Your task to perform on an android device: allow cookies in the chrome app Image 0: 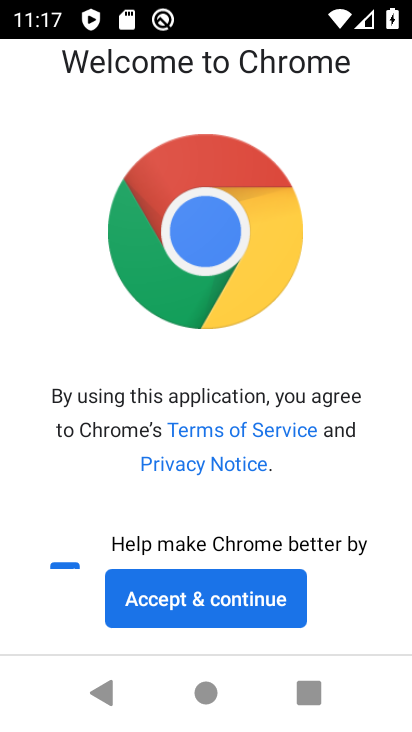
Step 0: click (160, 598)
Your task to perform on an android device: allow cookies in the chrome app Image 1: 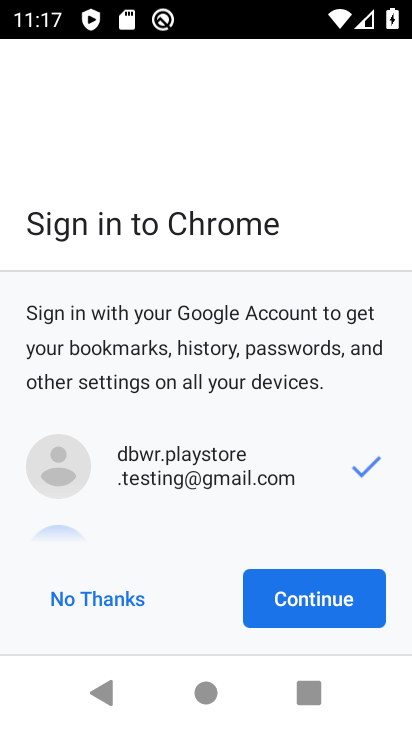
Step 1: click (340, 601)
Your task to perform on an android device: allow cookies in the chrome app Image 2: 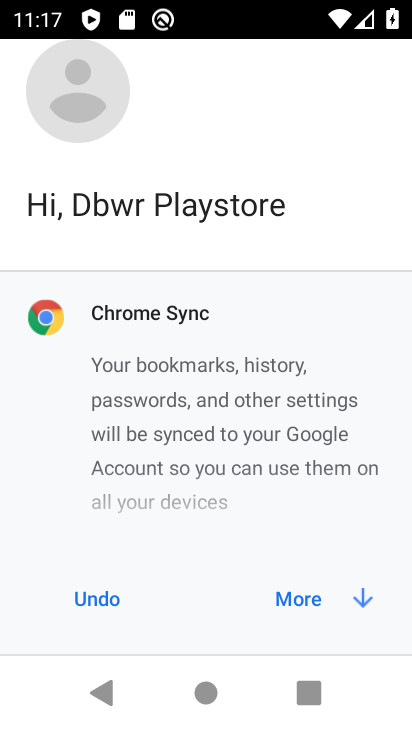
Step 2: click (291, 598)
Your task to perform on an android device: allow cookies in the chrome app Image 3: 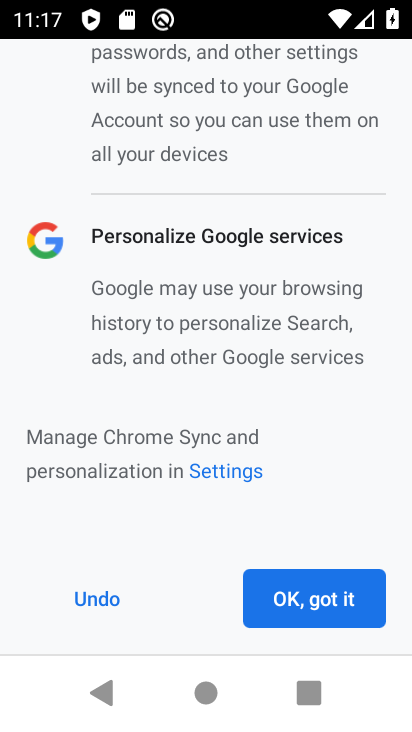
Step 3: click (305, 601)
Your task to perform on an android device: allow cookies in the chrome app Image 4: 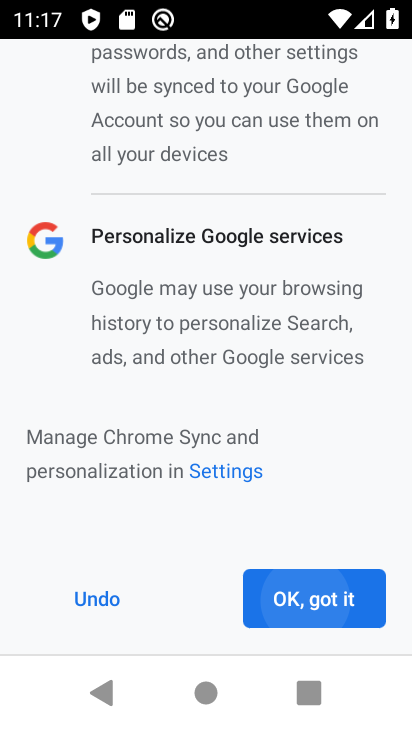
Step 4: click (299, 605)
Your task to perform on an android device: allow cookies in the chrome app Image 5: 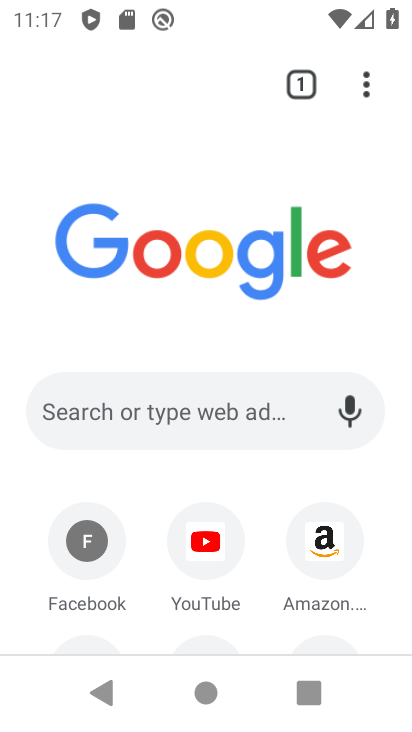
Step 5: click (347, 90)
Your task to perform on an android device: allow cookies in the chrome app Image 6: 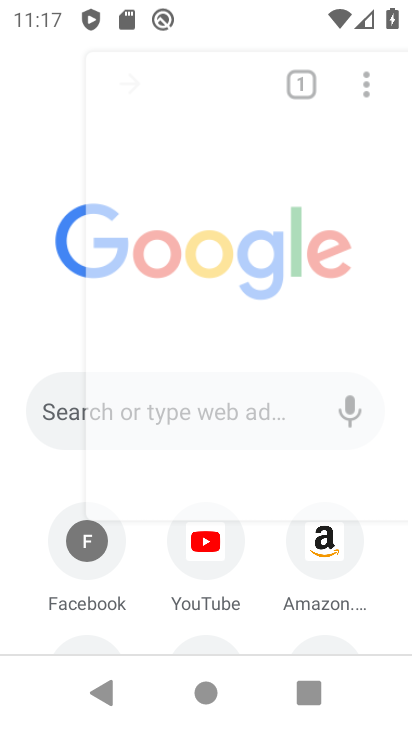
Step 6: click (359, 92)
Your task to perform on an android device: allow cookies in the chrome app Image 7: 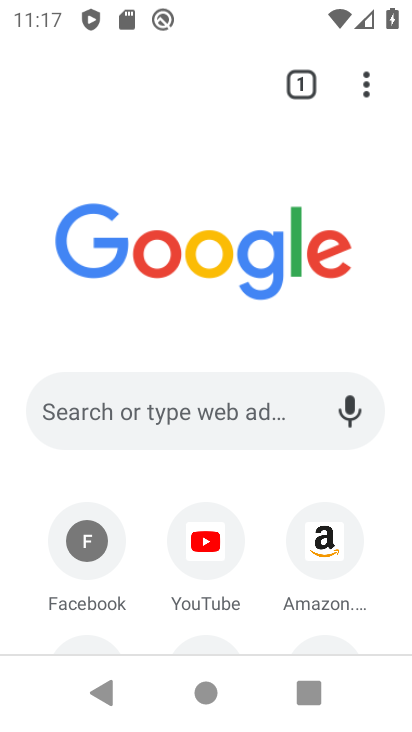
Step 7: drag from (369, 82) to (102, 510)
Your task to perform on an android device: allow cookies in the chrome app Image 8: 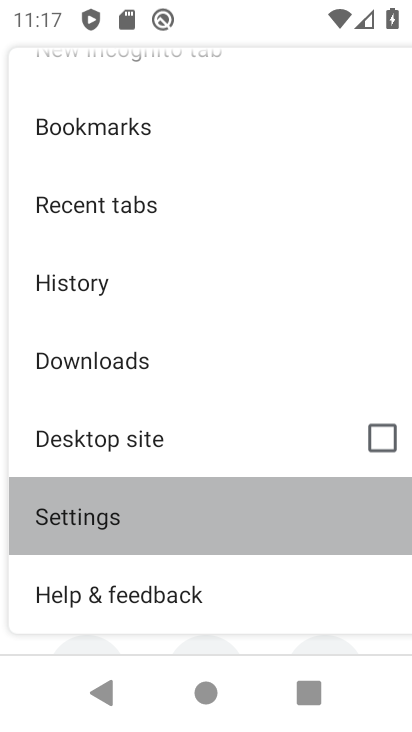
Step 8: click (102, 510)
Your task to perform on an android device: allow cookies in the chrome app Image 9: 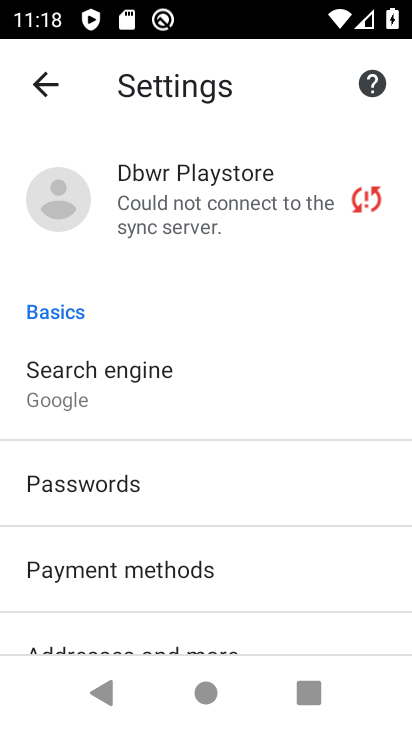
Step 9: drag from (199, 555) to (143, 141)
Your task to perform on an android device: allow cookies in the chrome app Image 10: 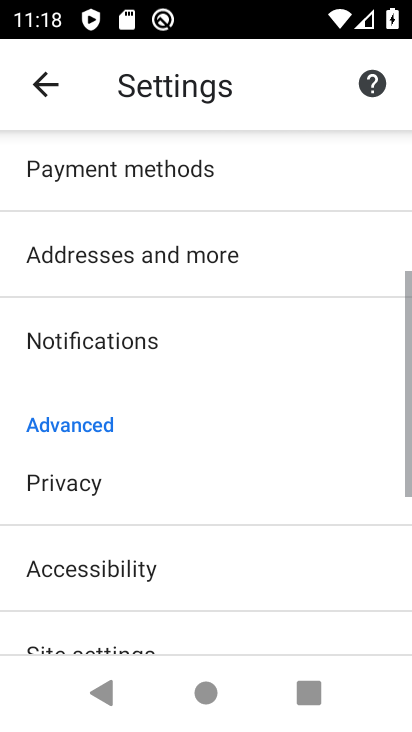
Step 10: drag from (209, 414) to (156, 76)
Your task to perform on an android device: allow cookies in the chrome app Image 11: 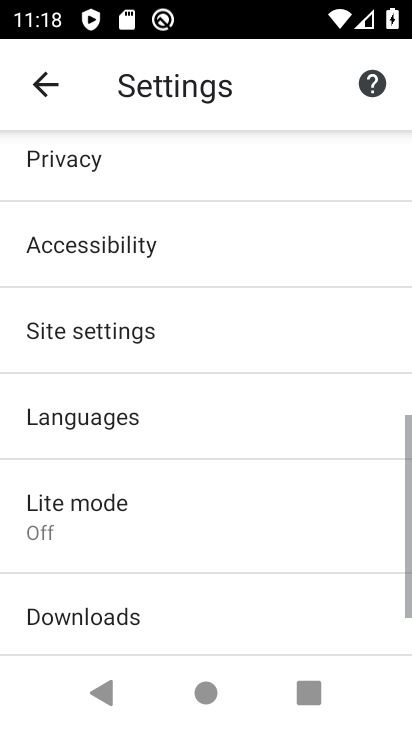
Step 11: drag from (190, 421) to (118, 56)
Your task to perform on an android device: allow cookies in the chrome app Image 12: 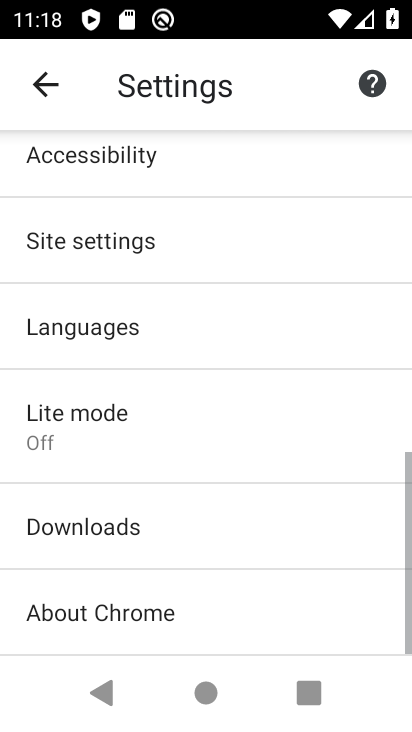
Step 12: click (70, 244)
Your task to perform on an android device: allow cookies in the chrome app Image 13: 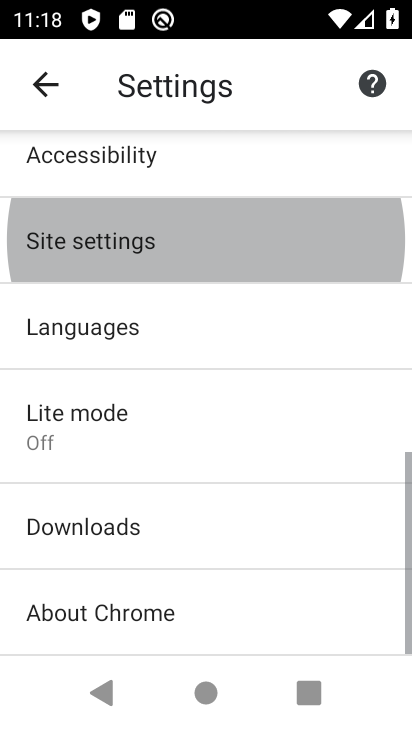
Step 13: click (72, 244)
Your task to perform on an android device: allow cookies in the chrome app Image 14: 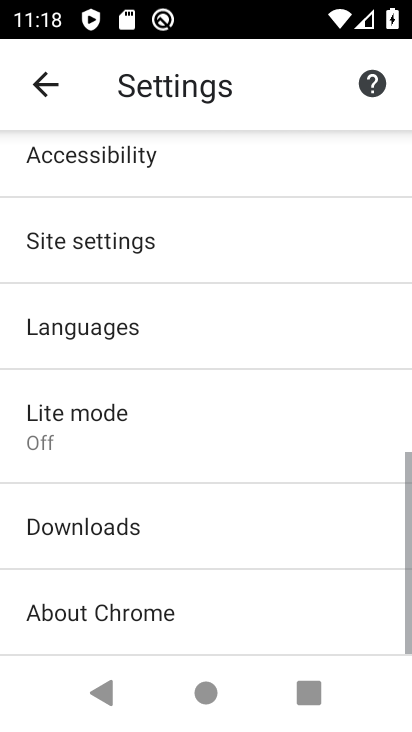
Step 14: click (72, 244)
Your task to perform on an android device: allow cookies in the chrome app Image 15: 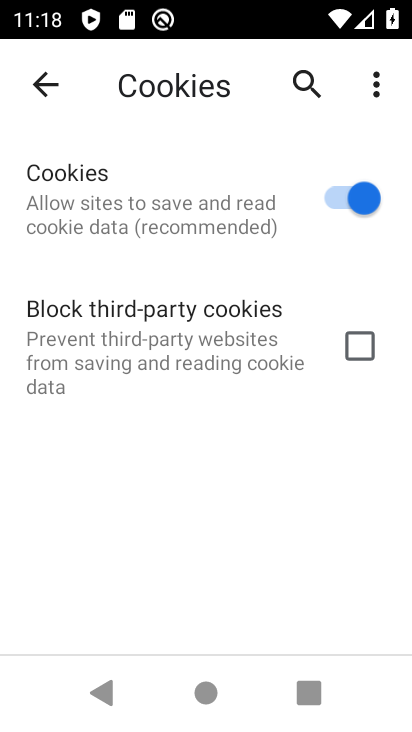
Step 15: click (42, 97)
Your task to perform on an android device: allow cookies in the chrome app Image 16: 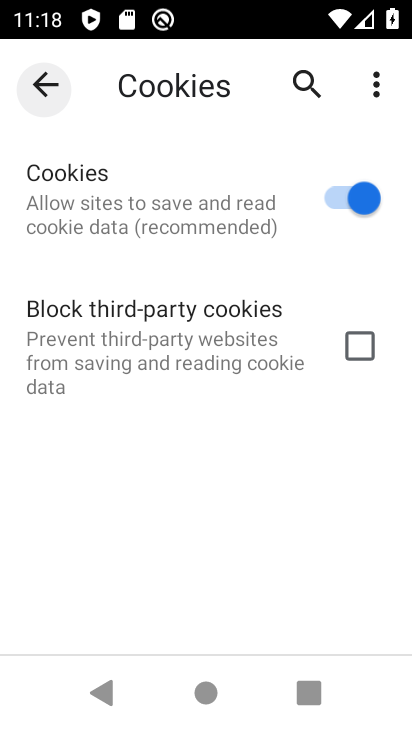
Step 16: click (42, 94)
Your task to perform on an android device: allow cookies in the chrome app Image 17: 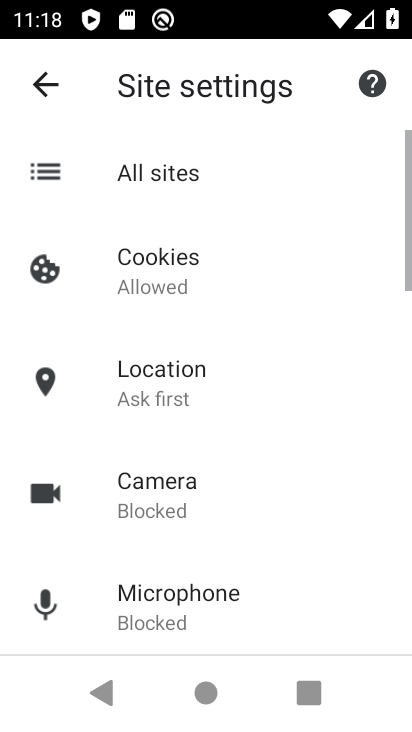
Step 17: click (42, 94)
Your task to perform on an android device: allow cookies in the chrome app Image 18: 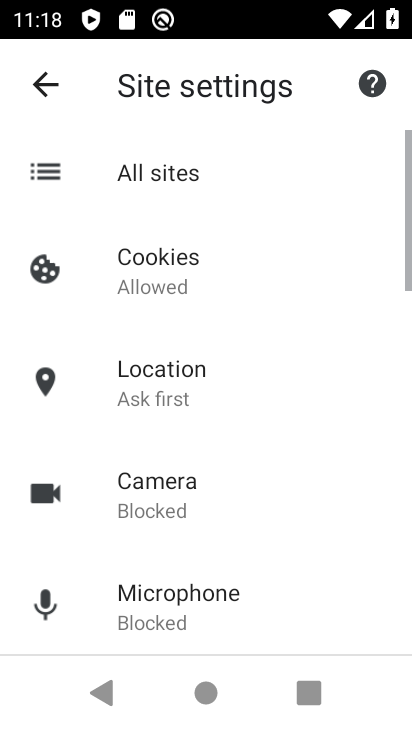
Step 18: click (42, 94)
Your task to perform on an android device: allow cookies in the chrome app Image 19: 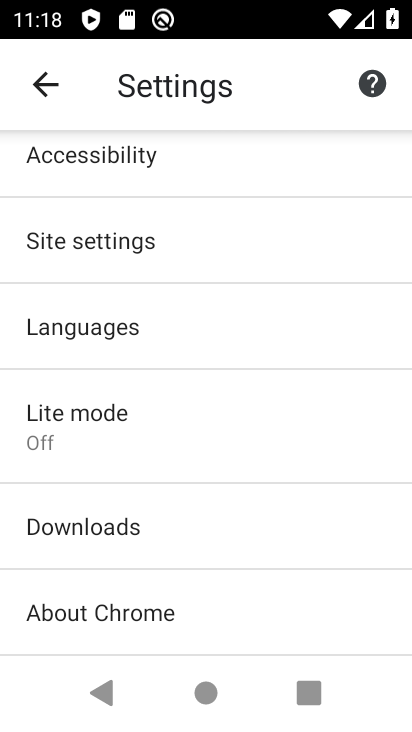
Step 19: click (78, 243)
Your task to perform on an android device: allow cookies in the chrome app Image 20: 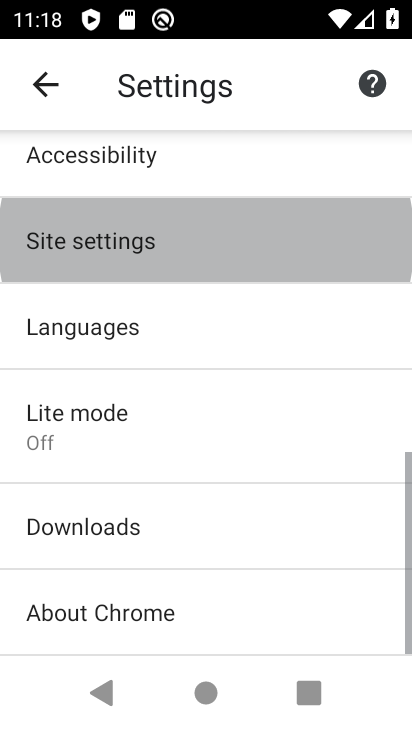
Step 20: click (79, 242)
Your task to perform on an android device: allow cookies in the chrome app Image 21: 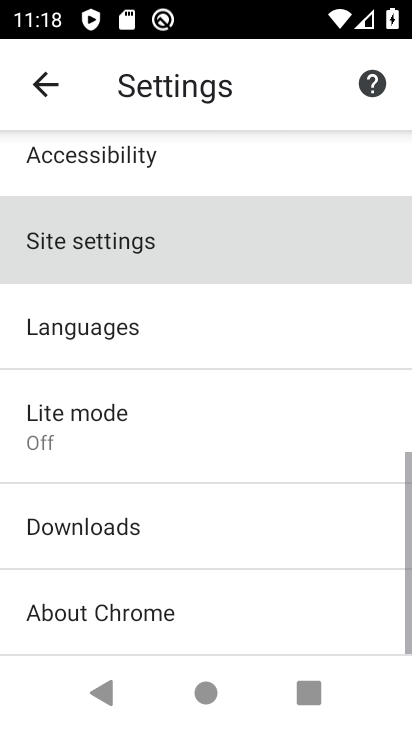
Step 21: click (79, 242)
Your task to perform on an android device: allow cookies in the chrome app Image 22: 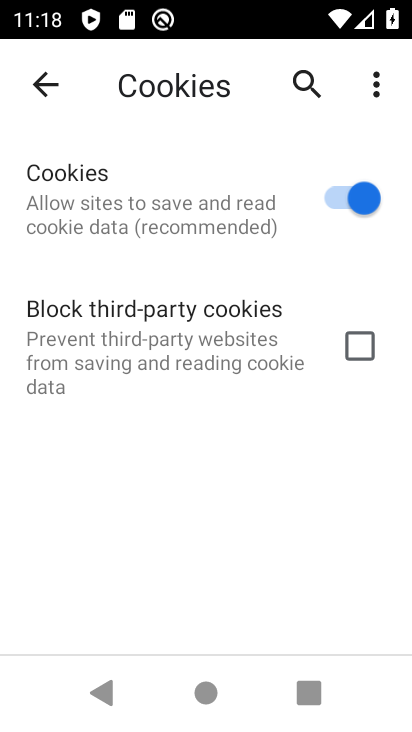
Step 22: task complete